Your task to perform on an android device: open device folders in google photos Image 0: 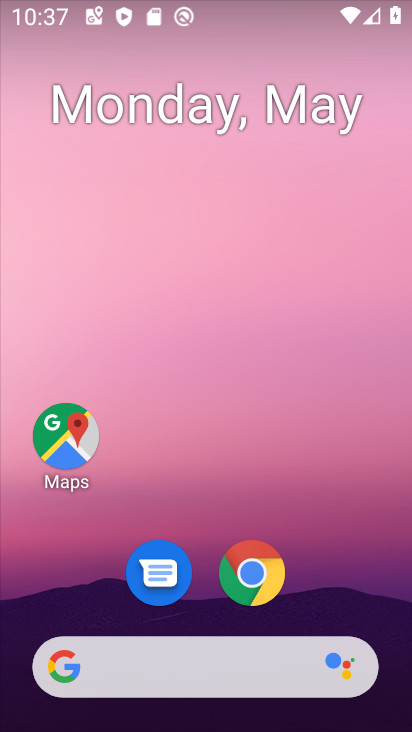
Step 0: drag from (199, 482) to (283, 52)
Your task to perform on an android device: open device folders in google photos Image 1: 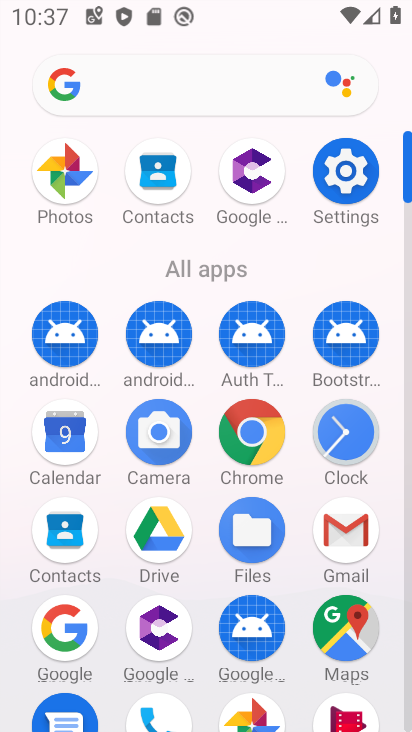
Step 1: click (256, 709)
Your task to perform on an android device: open device folders in google photos Image 2: 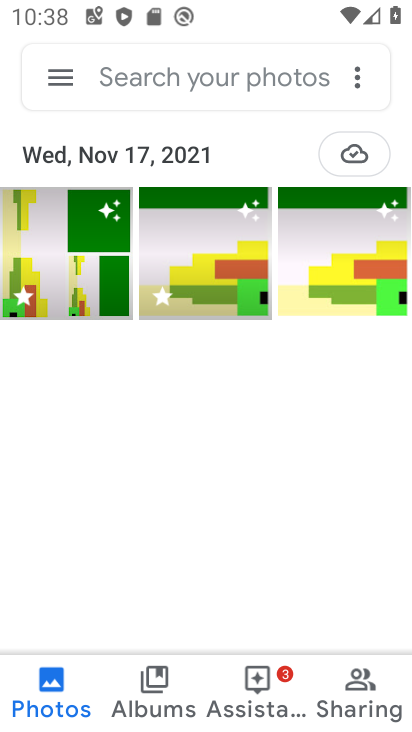
Step 2: click (53, 71)
Your task to perform on an android device: open device folders in google photos Image 3: 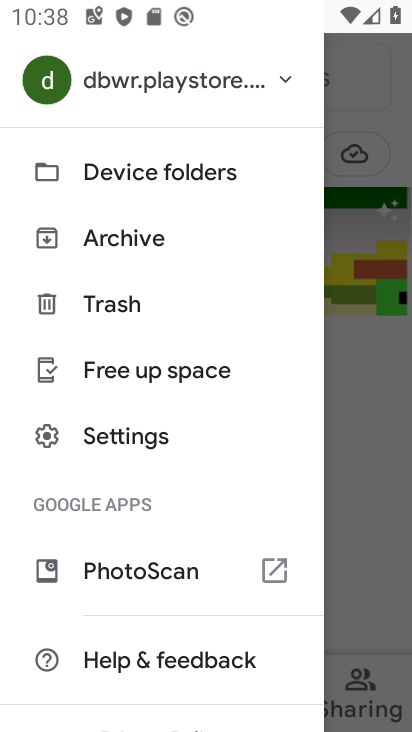
Step 3: click (144, 174)
Your task to perform on an android device: open device folders in google photos Image 4: 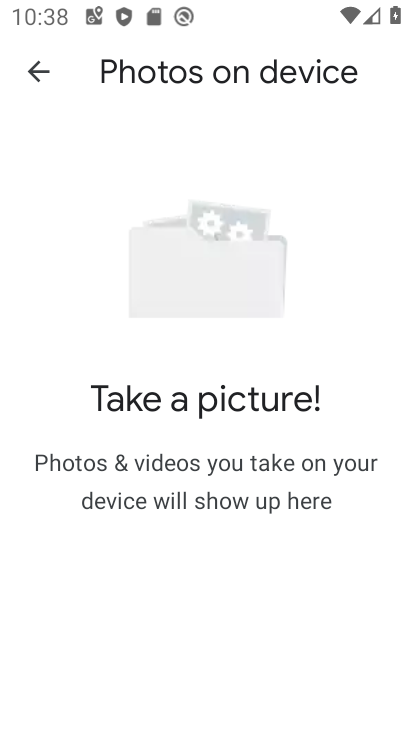
Step 4: task complete